Your task to perform on an android device: Open wifi settings Image 0: 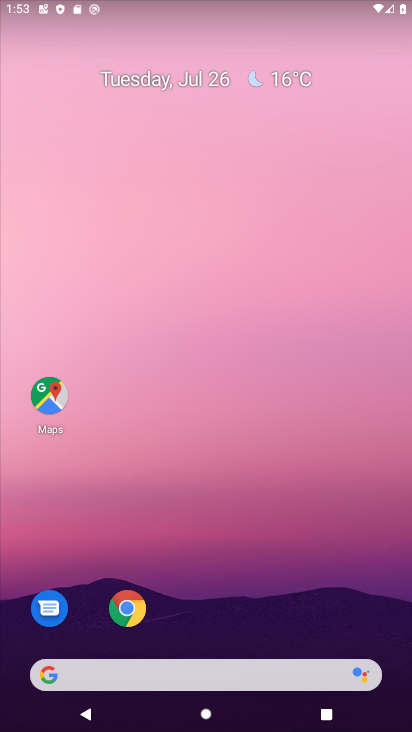
Step 0: drag from (269, 633) to (251, 1)
Your task to perform on an android device: Open wifi settings Image 1: 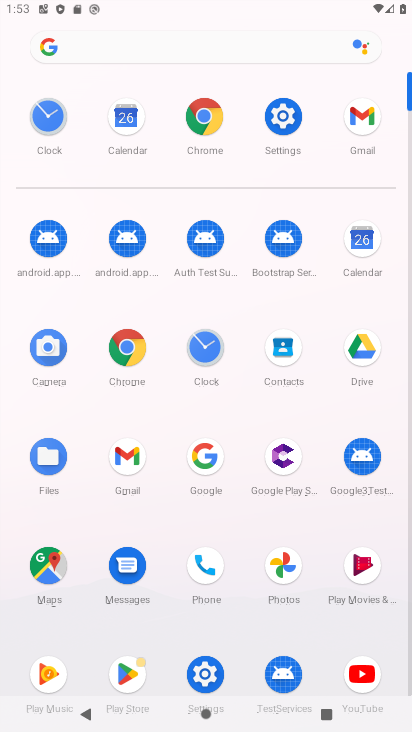
Step 1: click (280, 107)
Your task to perform on an android device: Open wifi settings Image 2: 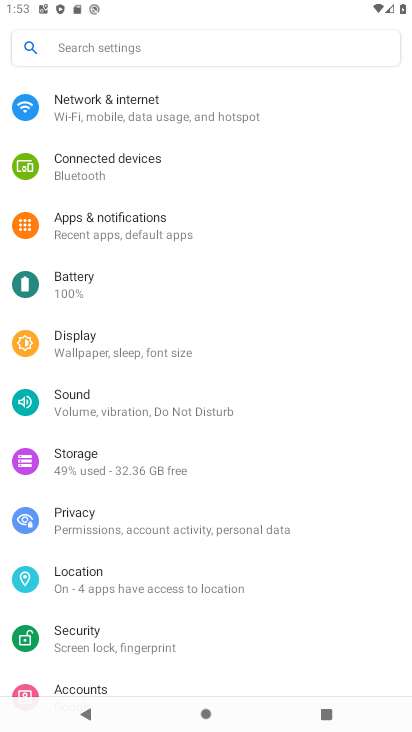
Step 2: task complete